Your task to perform on an android device: turn notification dots off Image 0: 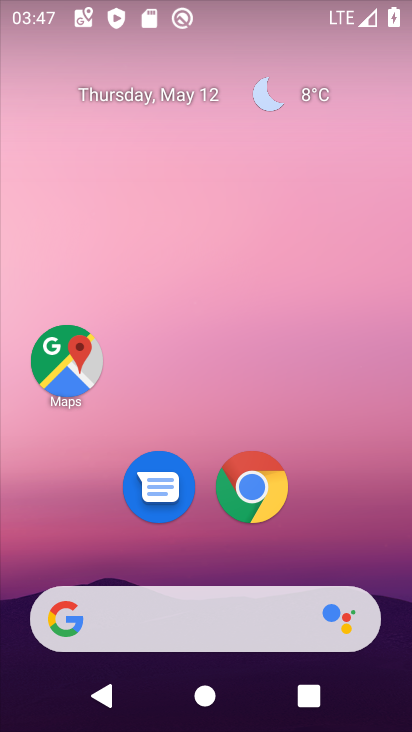
Step 0: drag from (325, 502) to (246, 40)
Your task to perform on an android device: turn notification dots off Image 1: 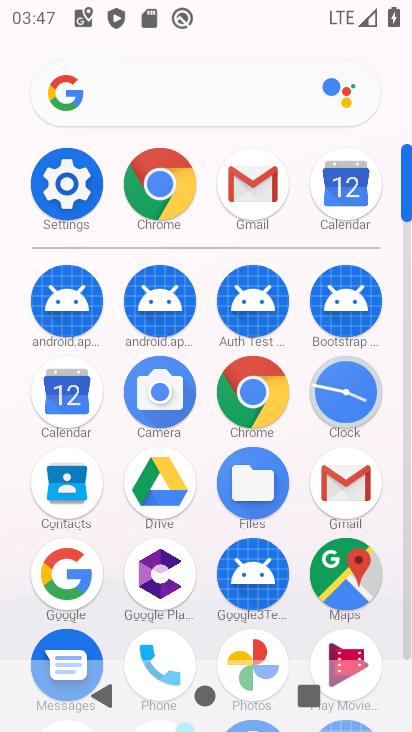
Step 1: click (77, 178)
Your task to perform on an android device: turn notification dots off Image 2: 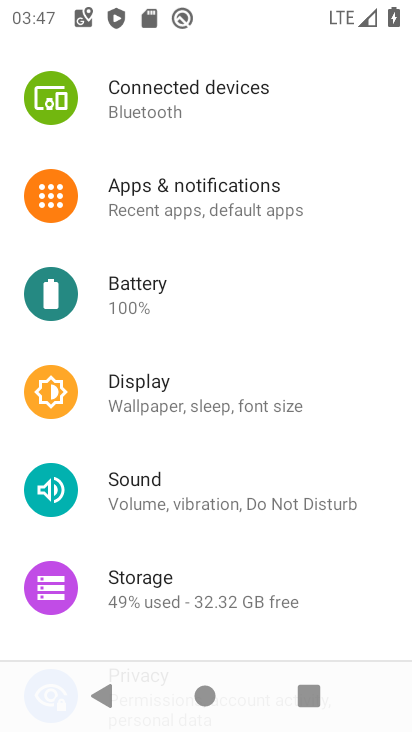
Step 2: drag from (259, 570) to (291, 596)
Your task to perform on an android device: turn notification dots off Image 3: 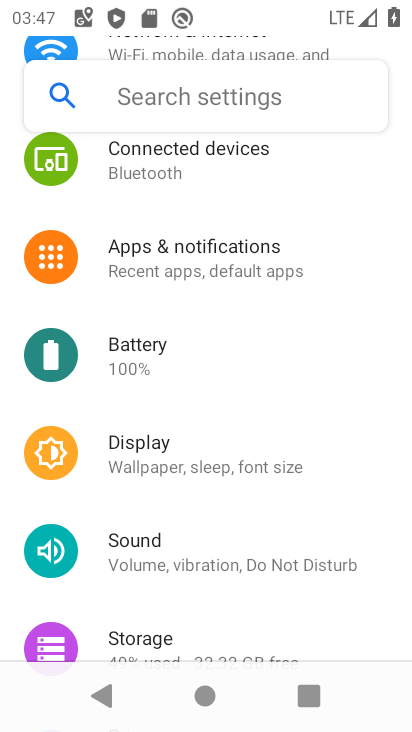
Step 3: click (226, 250)
Your task to perform on an android device: turn notification dots off Image 4: 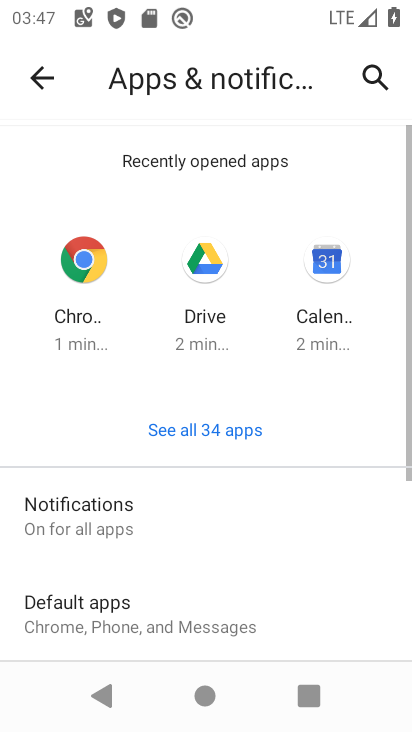
Step 4: click (114, 518)
Your task to perform on an android device: turn notification dots off Image 5: 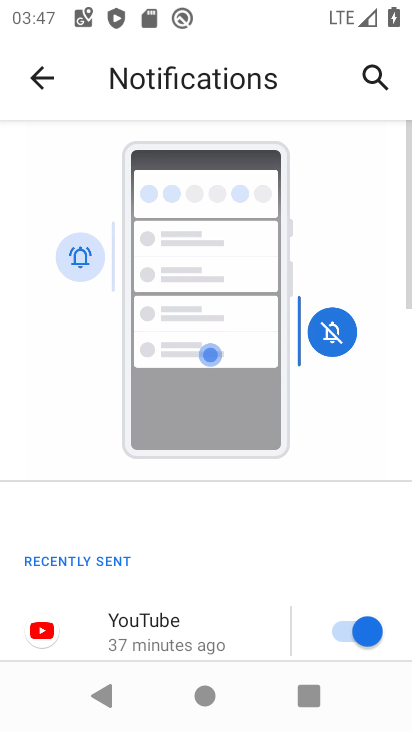
Step 5: drag from (251, 560) to (296, 44)
Your task to perform on an android device: turn notification dots off Image 6: 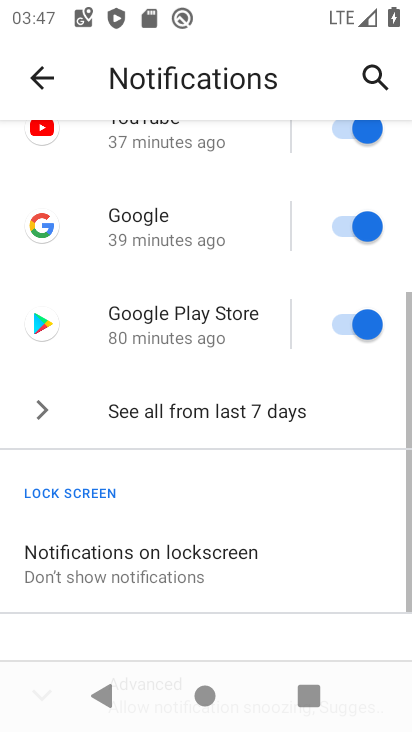
Step 6: drag from (181, 571) to (245, 79)
Your task to perform on an android device: turn notification dots off Image 7: 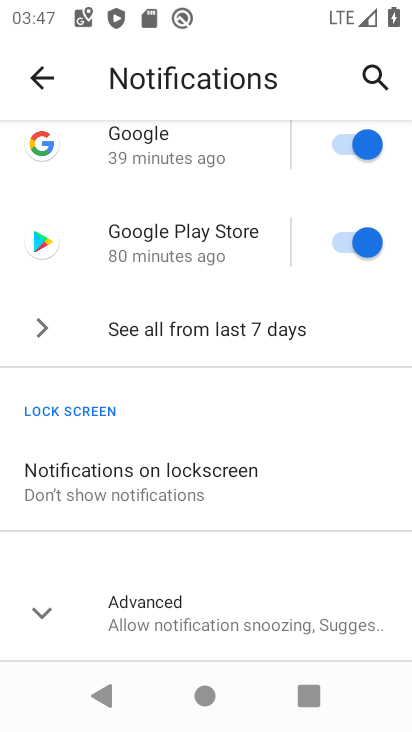
Step 7: click (139, 634)
Your task to perform on an android device: turn notification dots off Image 8: 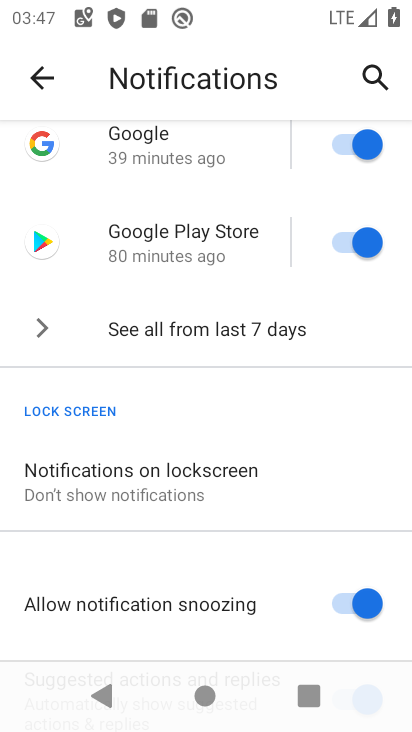
Step 8: drag from (259, 545) to (103, 113)
Your task to perform on an android device: turn notification dots off Image 9: 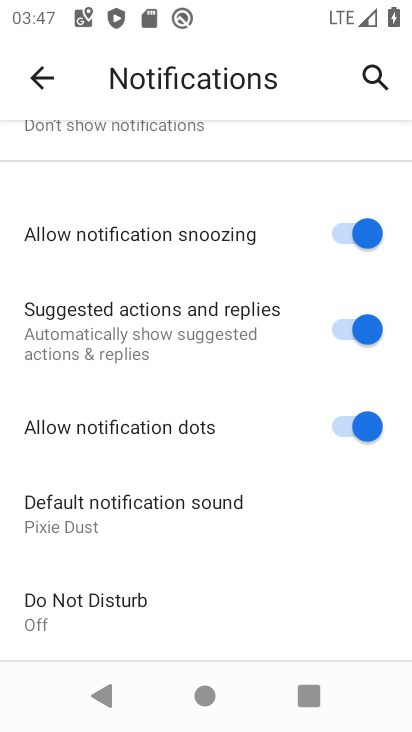
Step 9: click (367, 419)
Your task to perform on an android device: turn notification dots off Image 10: 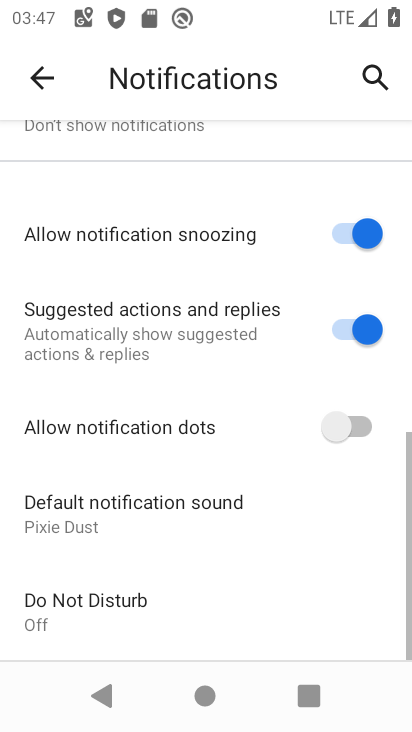
Step 10: task complete